Your task to perform on an android device: Show me recent news Image 0: 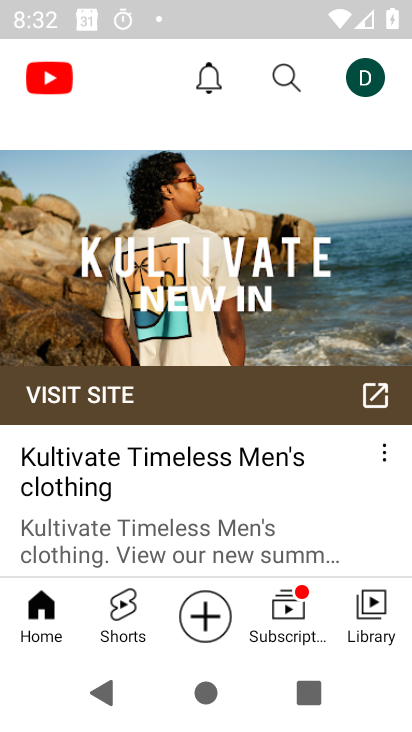
Step 0: press home button
Your task to perform on an android device: Show me recent news Image 1: 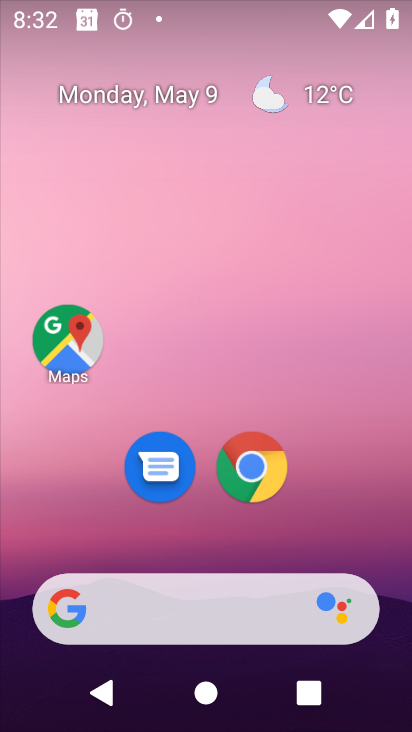
Step 1: task complete